Your task to perform on an android device: Open network settings Image 0: 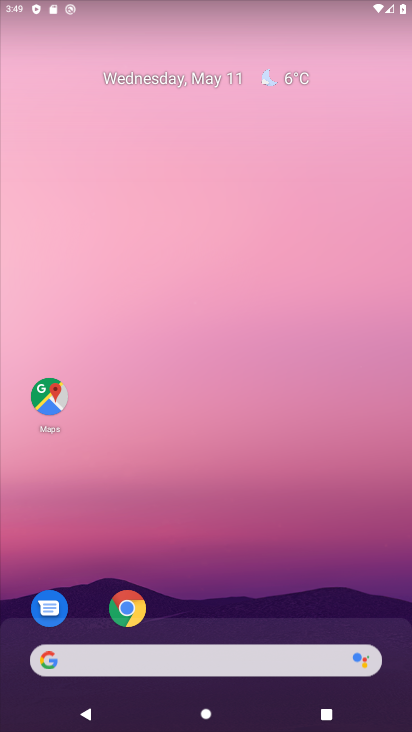
Step 0: drag from (235, 727) to (235, 131)
Your task to perform on an android device: Open network settings Image 1: 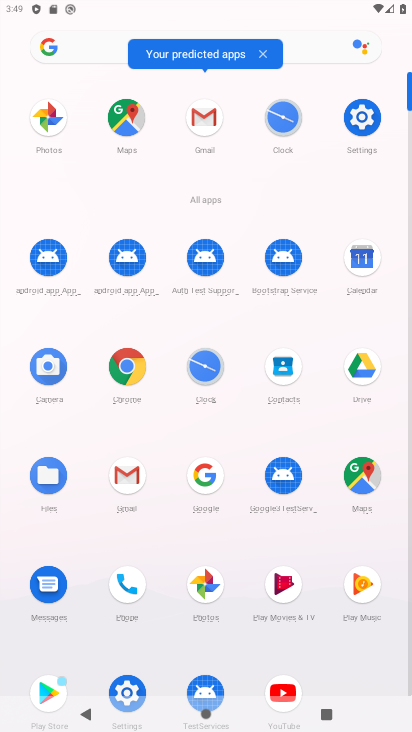
Step 1: click (357, 115)
Your task to perform on an android device: Open network settings Image 2: 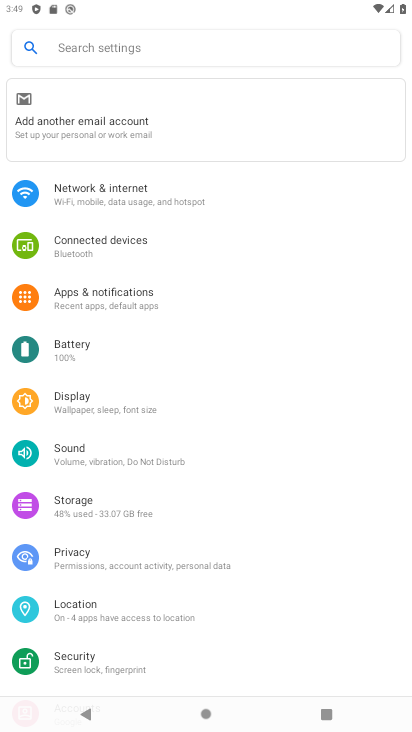
Step 2: click (106, 193)
Your task to perform on an android device: Open network settings Image 3: 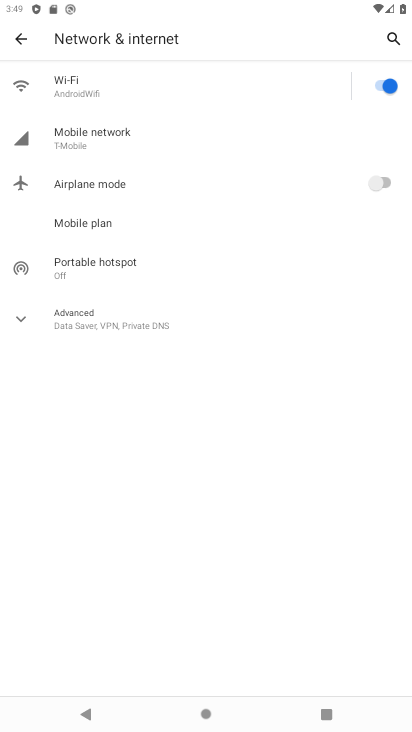
Step 3: task complete